Your task to perform on an android device: Search for sushi restaurants on Maps Image 0: 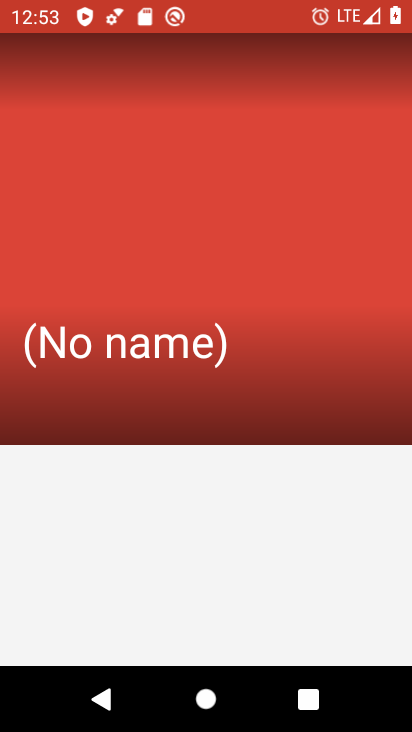
Step 0: click (236, 502)
Your task to perform on an android device: Search for sushi restaurants on Maps Image 1: 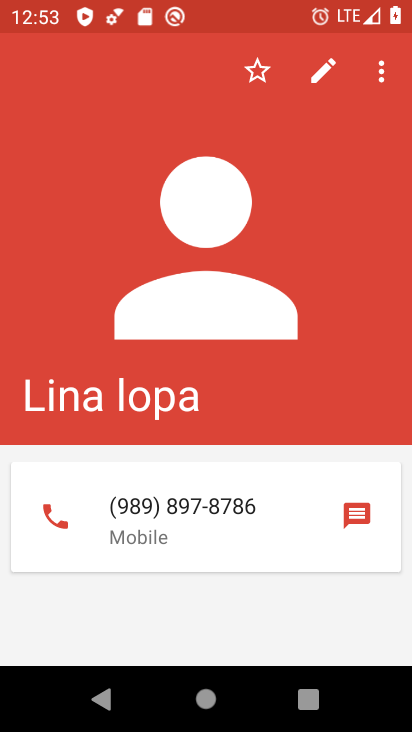
Step 1: click (385, 65)
Your task to perform on an android device: Search for sushi restaurants on Maps Image 2: 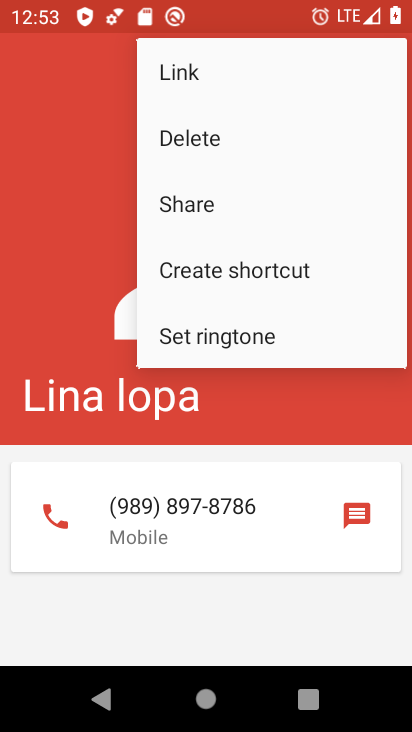
Step 2: click (199, 140)
Your task to perform on an android device: Search for sushi restaurants on Maps Image 3: 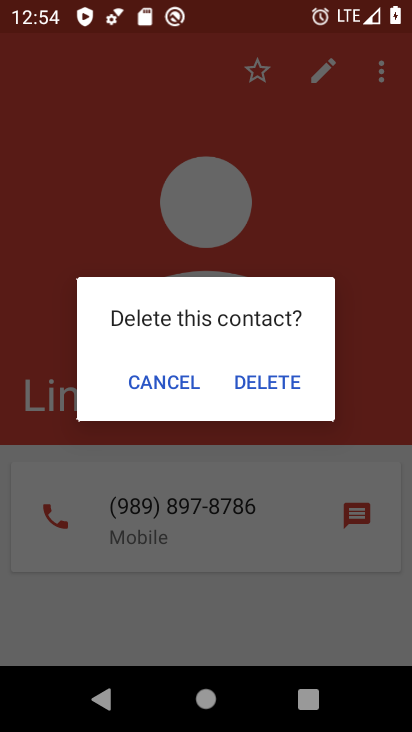
Step 3: press home button
Your task to perform on an android device: Search for sushi restaurants on Maps Image 4: 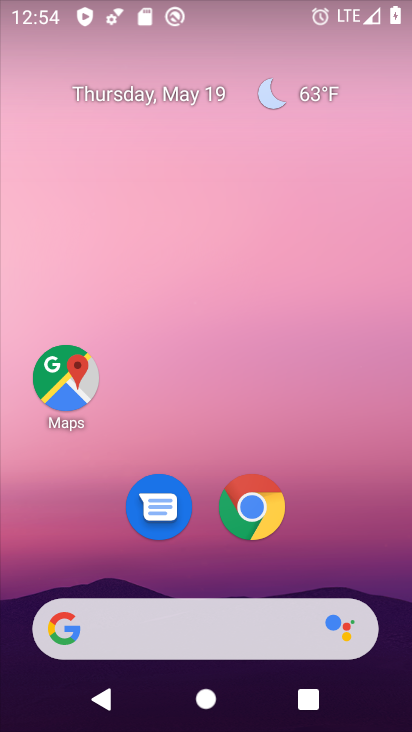
Step 4: click (70, 373)
Your task to perform on an android device: Search for sushi restaurants on Maps Image 5: 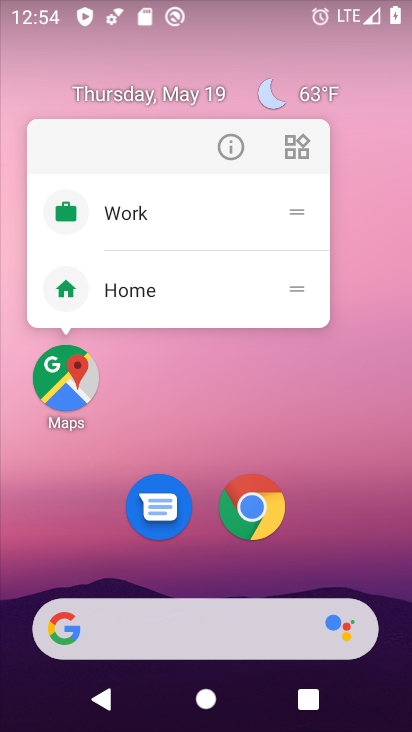
Step 5: click (71, 384)
Your task to perform on an android device: Search for sushi restaurants on Maps Image 6: 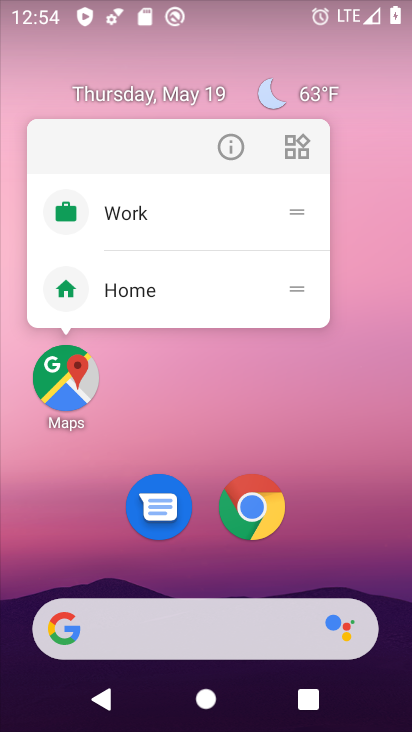
Step 6: click (62, 400)
Your task to perform on an android device: Search for sushi restaurants on Maps Image 7: 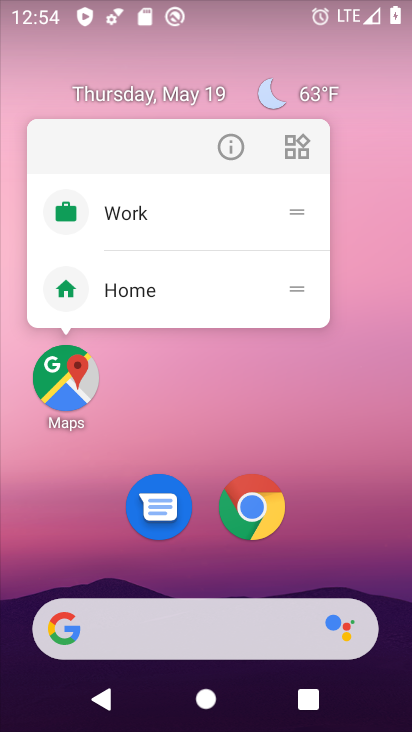
Step 7: click (54, 388)
Your task to perform on an android device: Search for sushi restaurants on Maps Image 8: 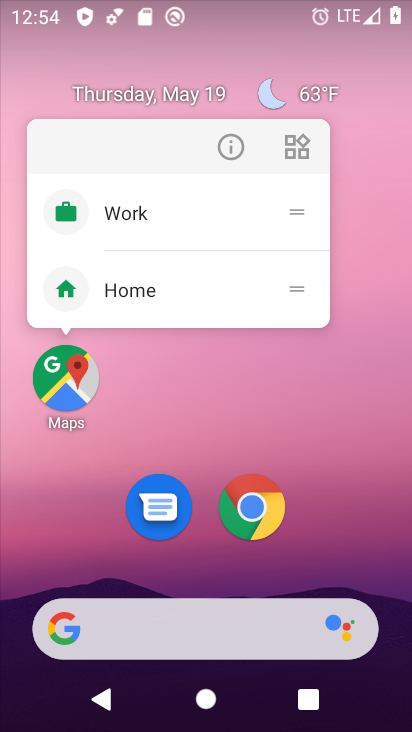
Step 8: click (50, 368)
Your task to perform on an android device: Search for sushi restaurants on Maps Image 9: 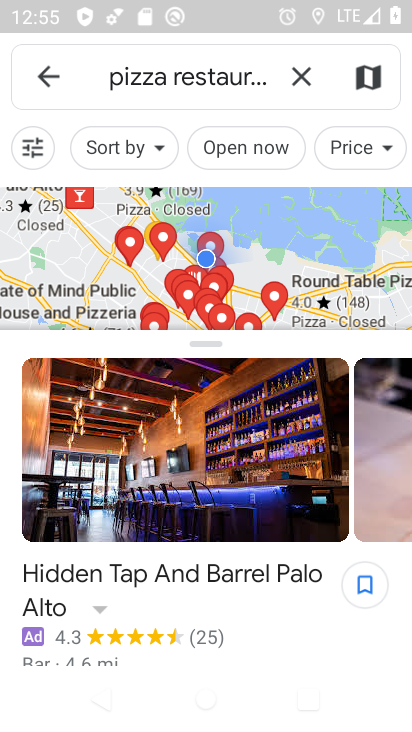
Step 9: drag from (237, 503) to (287, 215)
Your task to perform on an android device: Search for sushi restaurants on Maps Image 10: 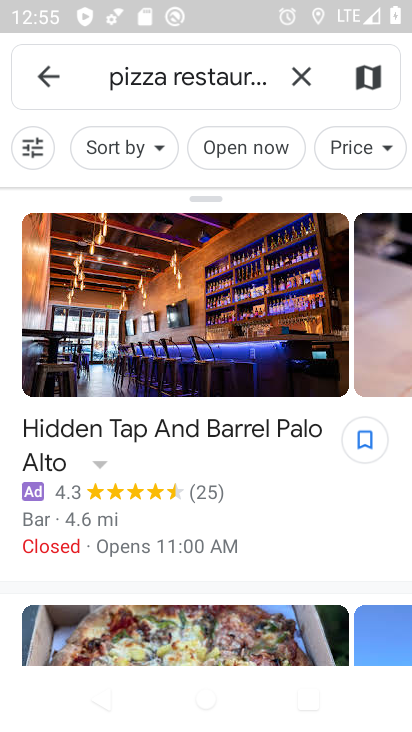
Step 10: click (307, 67)
Your task to perform on an android device: Search for sushi restaurants on Maps Image 11: 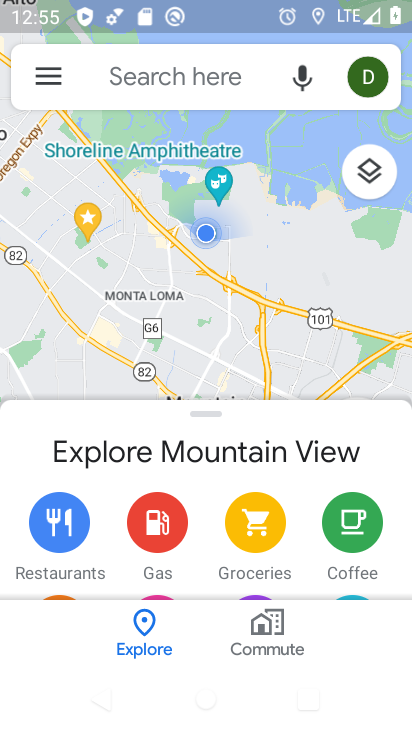
Step 11: click (228, 72)
Your task to perform on an android device: Search for sushi restaurants on Maps Image 12: 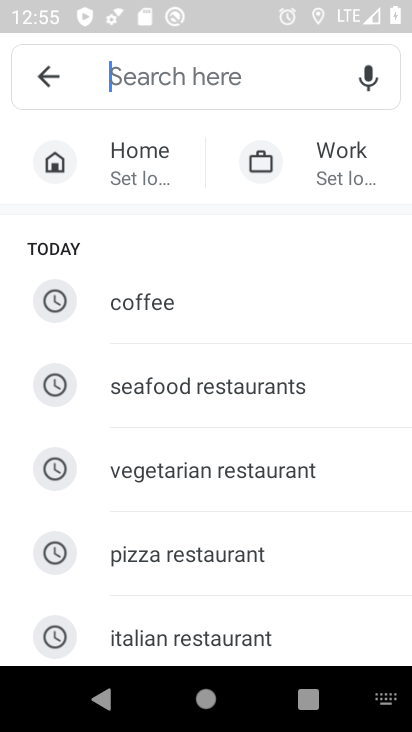
Step 12: drag from (172, 590) to (215, 279)
Your task to perform on an android device: Search for sushi restaurants on Maps Image 13: 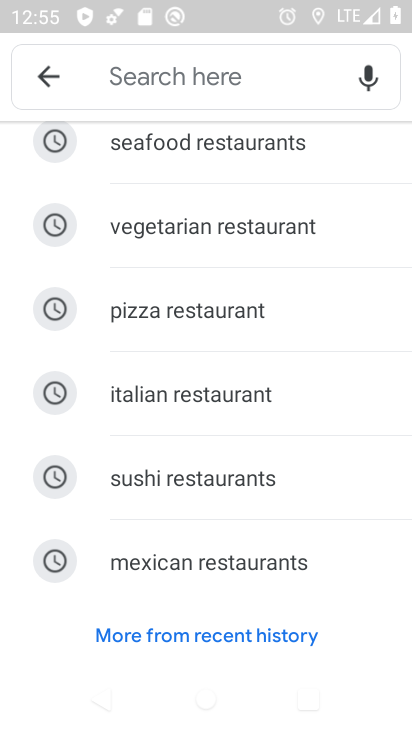
Step 13: click (192, 489)
Your task to perform on an android device: Search for sushi restaurants on Maps Image 14: 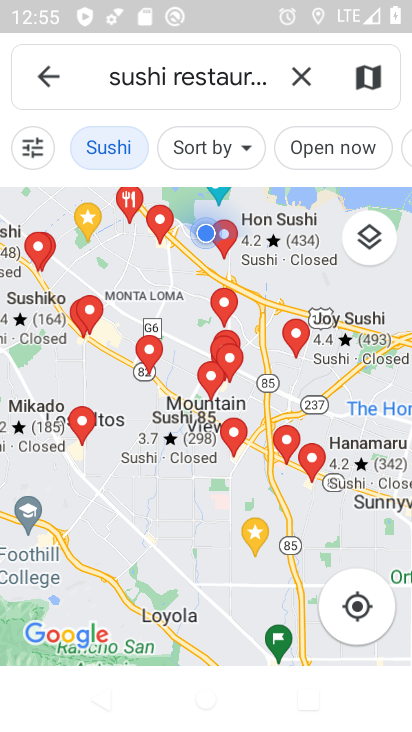
Step 14: task complete